Your task to perform on an android device: Open Amazon Image 0: 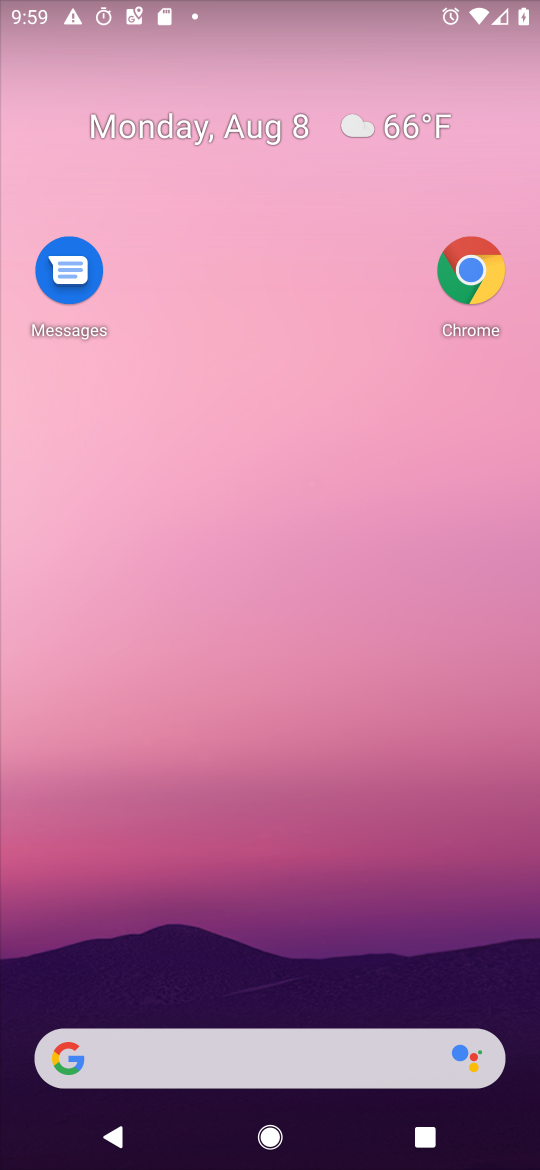
Step 0: drag from (246, 940) to (382, 55)
Your task to perform on an android device: Open Amazon Image 1: 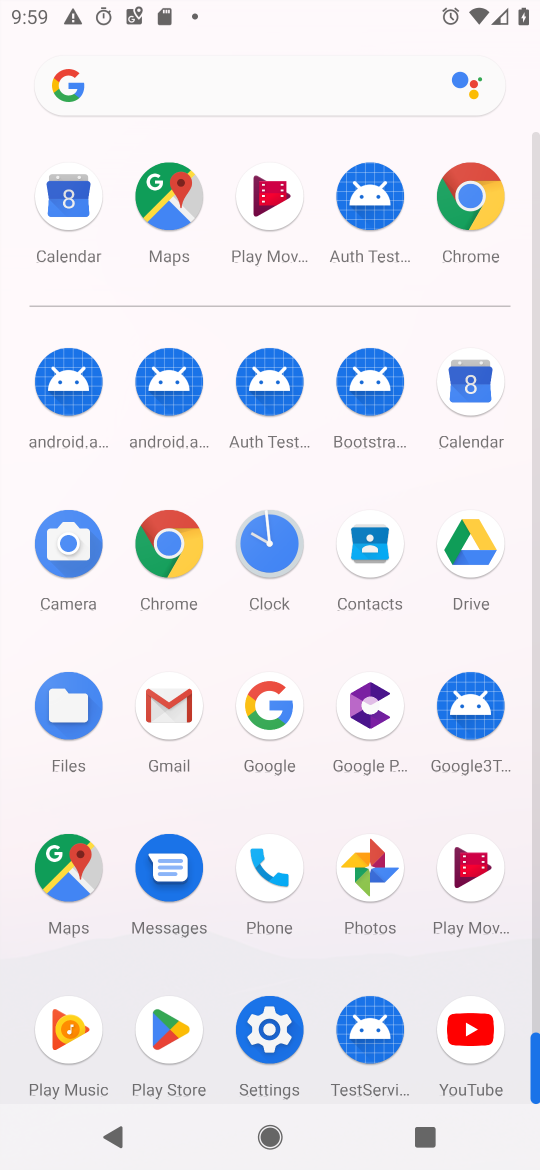
Step 1: click (175, 99)
Your task to perform on an android device: Open Amazon Image 2: 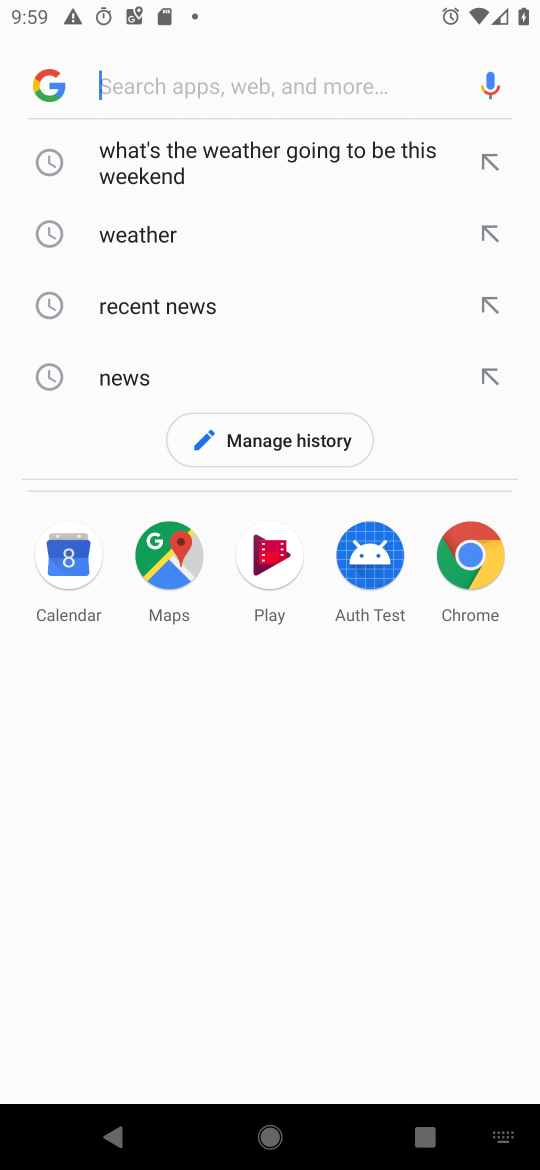
Step 2: type "Amazon"
Your task to perform on an android device: Open Amazon Image 3: 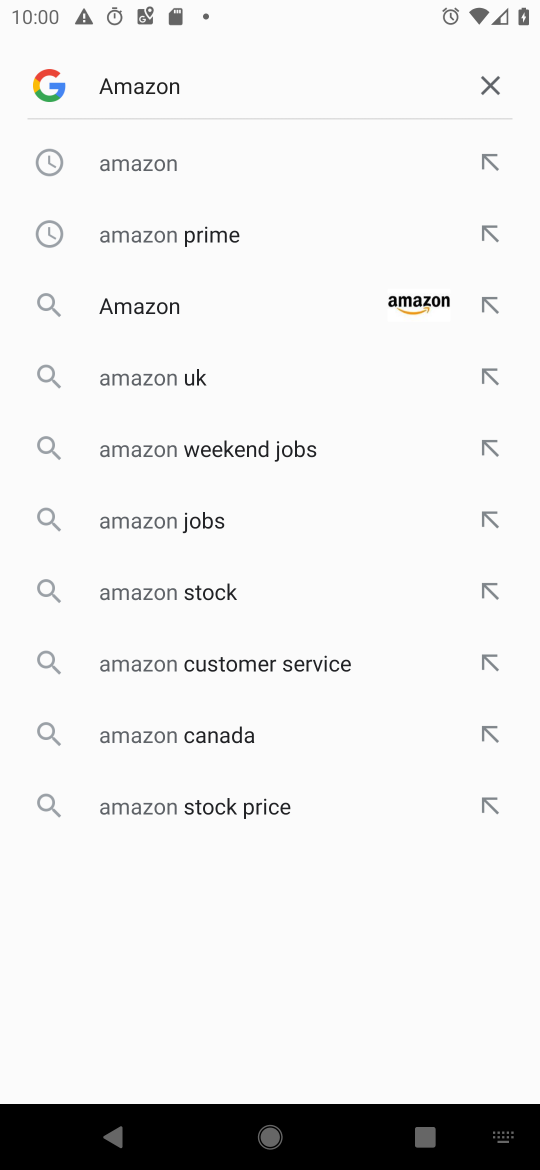
Step 3: click (199, 318)
Your task to perform on an android device: Open Amazon Image 4: 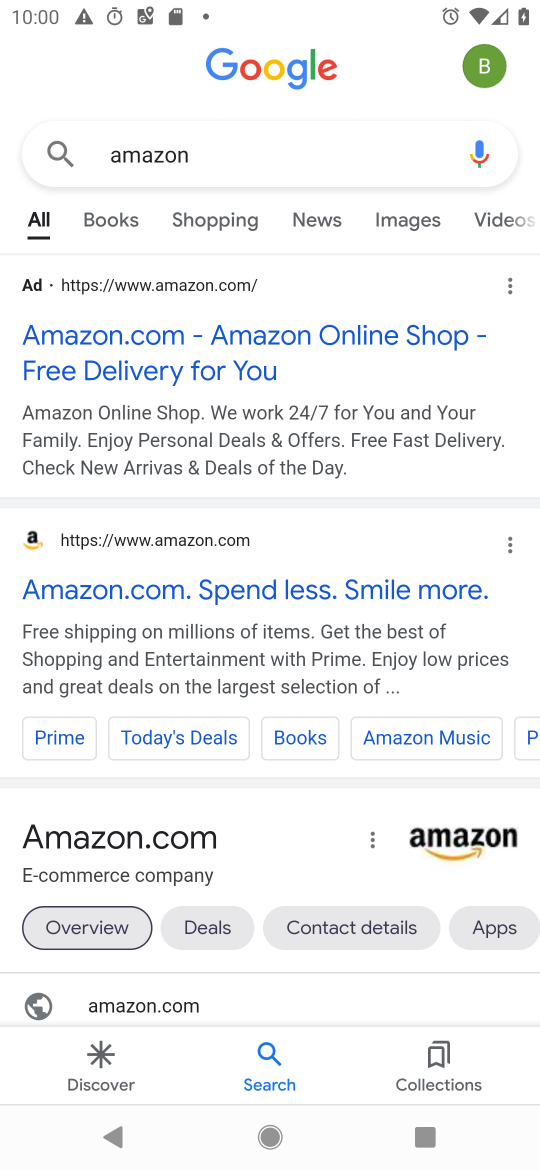
Step 4: click (198, 360)
Your task to perform on an android device: Open Amazon Image 5: 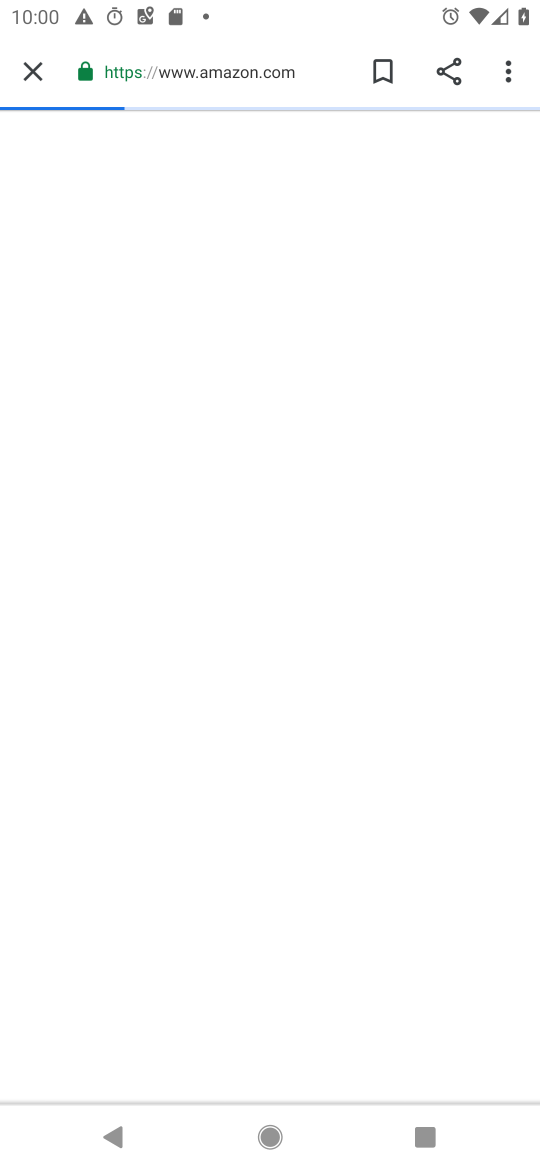
Step 5: task complete